Your task to perform on an android device: allow cookies in the chrome app Image 0: 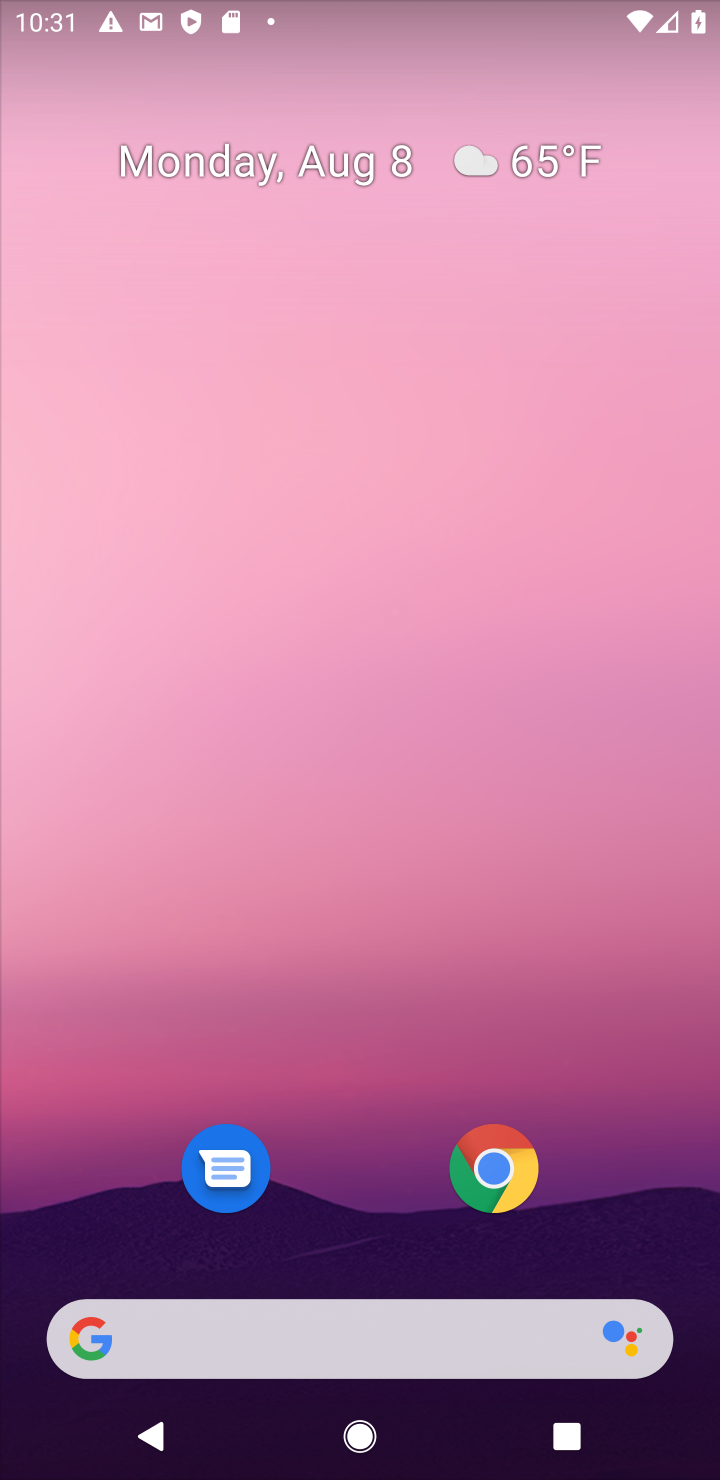
Step 0: click (506, 1191)
Your task to perform on an android device: allow cookies in the chrome app Image 1: 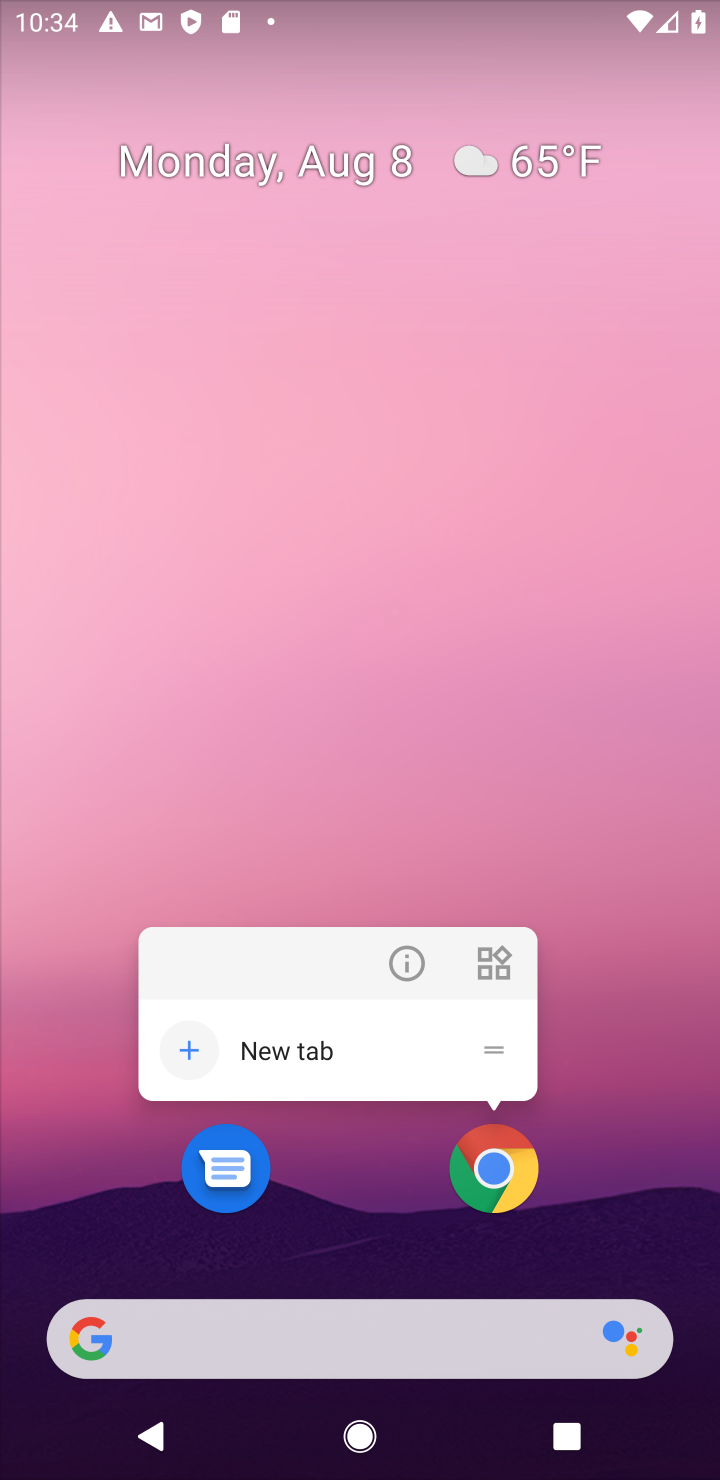
Step 1: click (437, 1180)
Your task to perform on an android device: allow cookies in the chrome app Image 2: 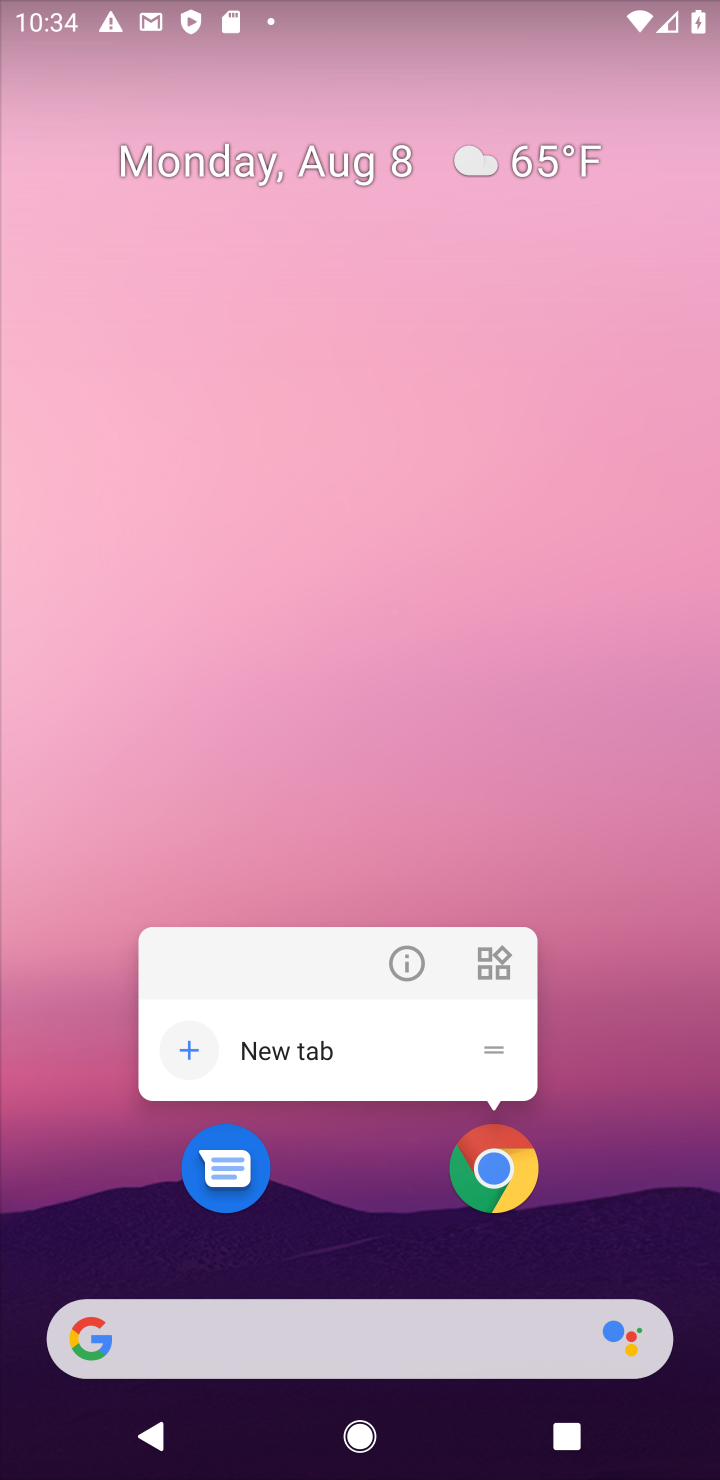
Step 2: click (527, 1184)
Your task to perform on an android device: allow cookies in the chrome app Image 3: 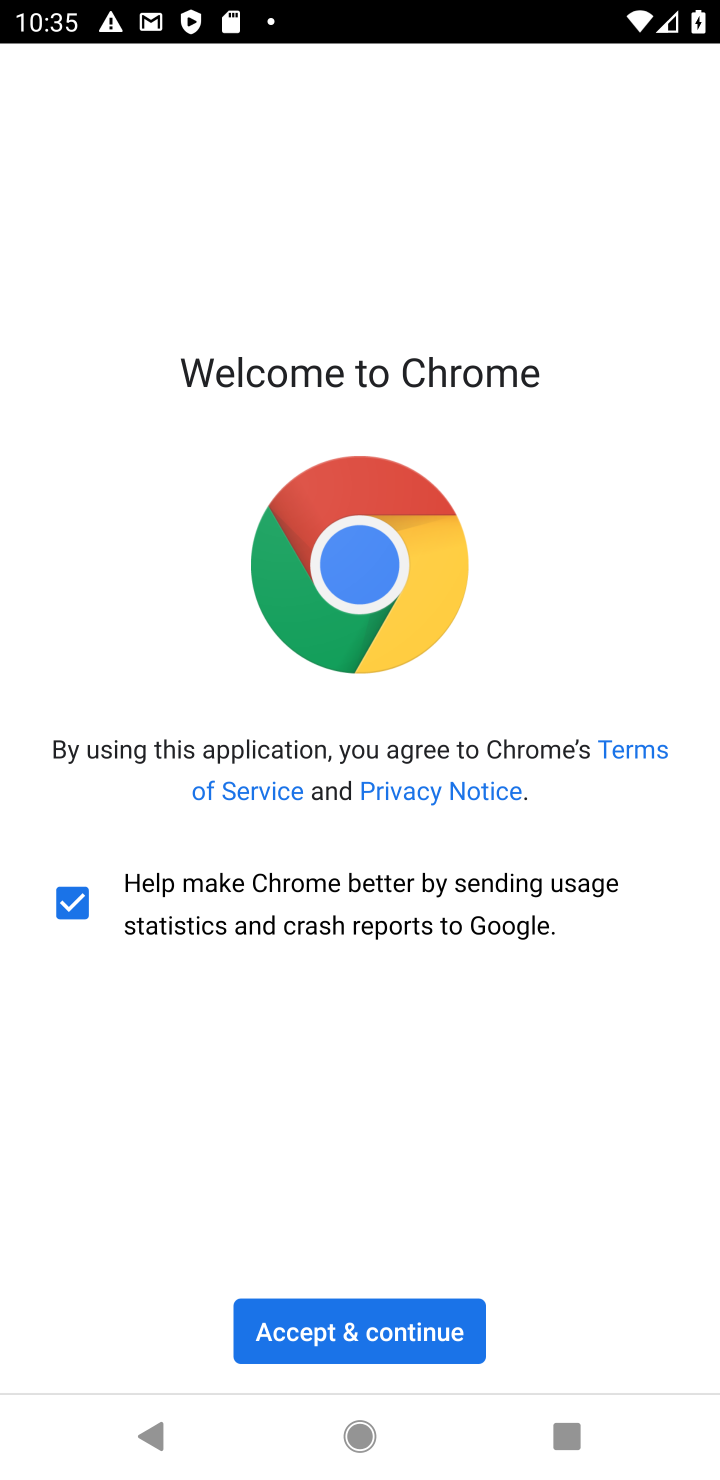
Step 3: click (377, 1329)
Your task to perform on an android device: allow cookies in the chrome app Image 4: 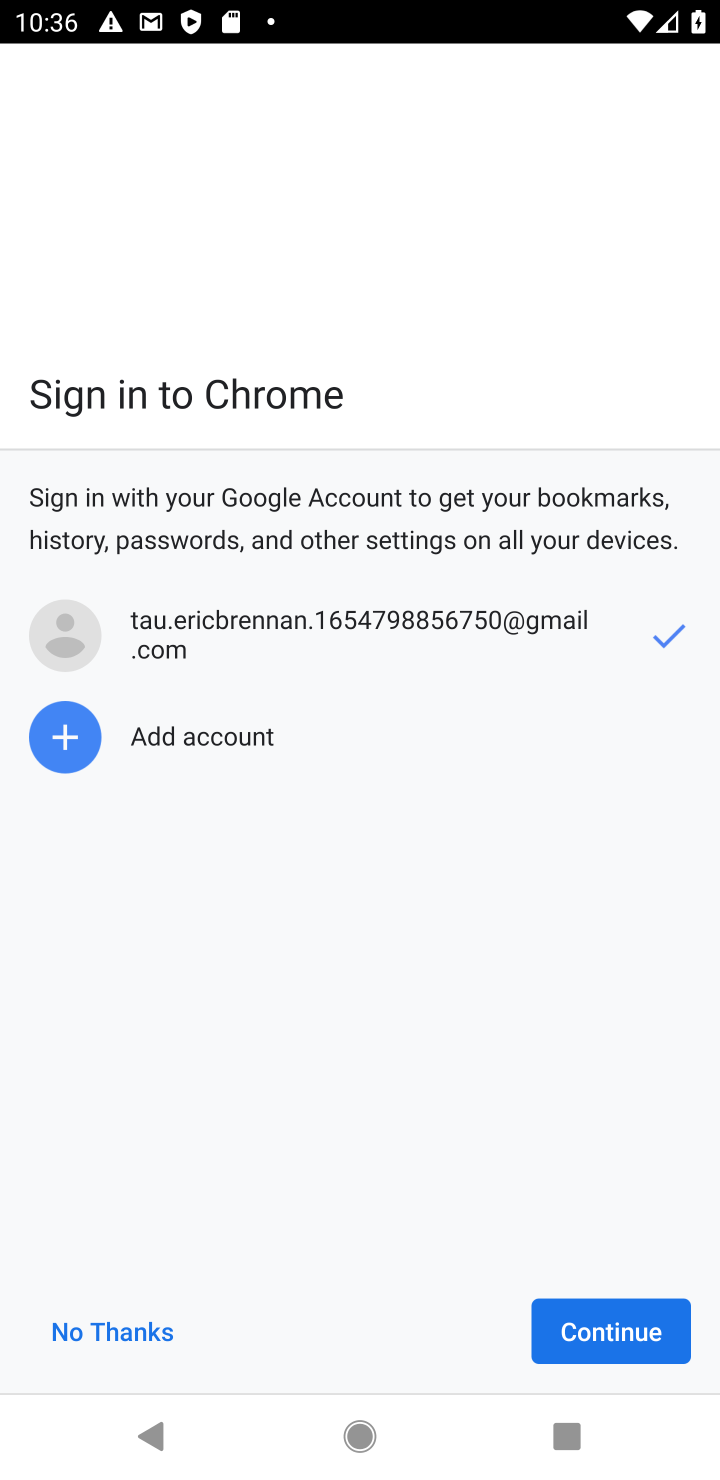
Step 4: click (377, 1329)
Your task to perform on an android device: allow cookies in the chrome app Image 5: 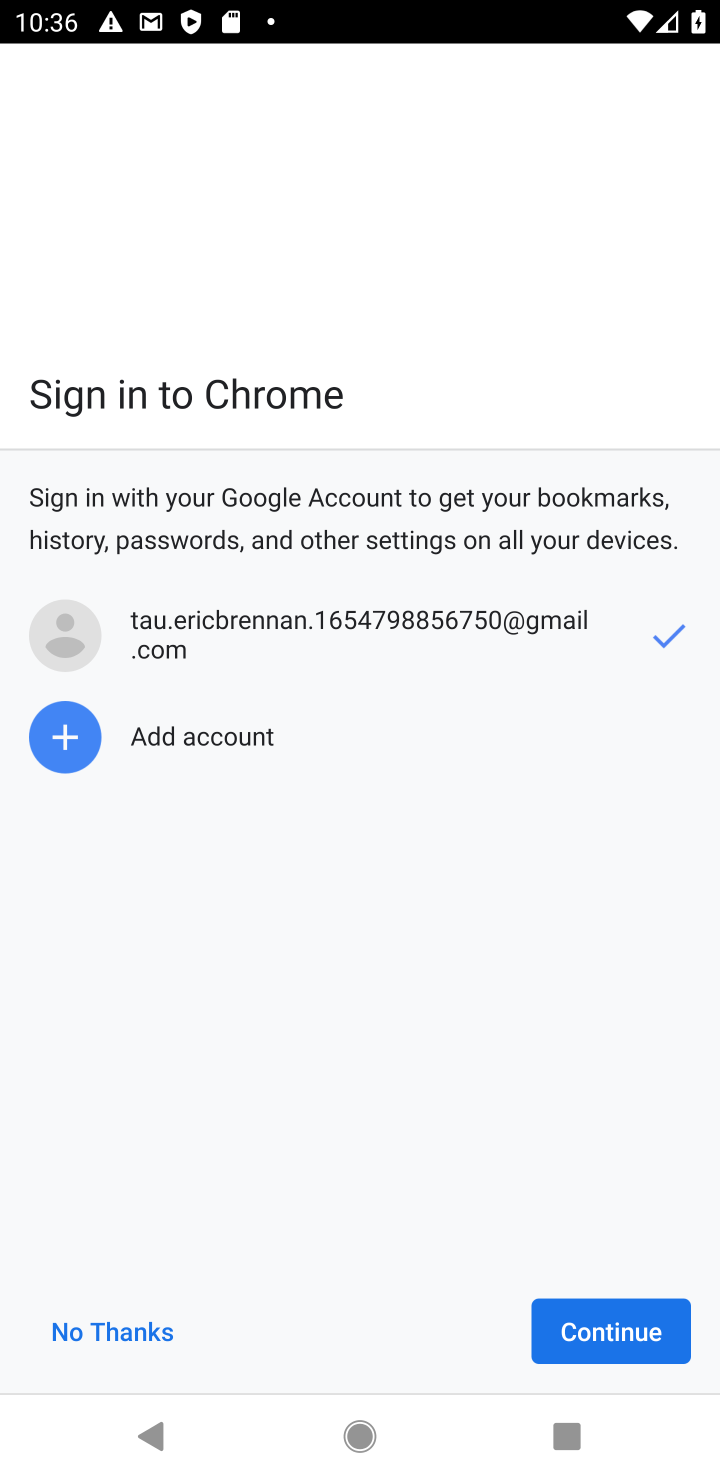
Step 5: click (672, 1342)
Your task to perform on an android device: allow cookies in the chrome app Image 6: 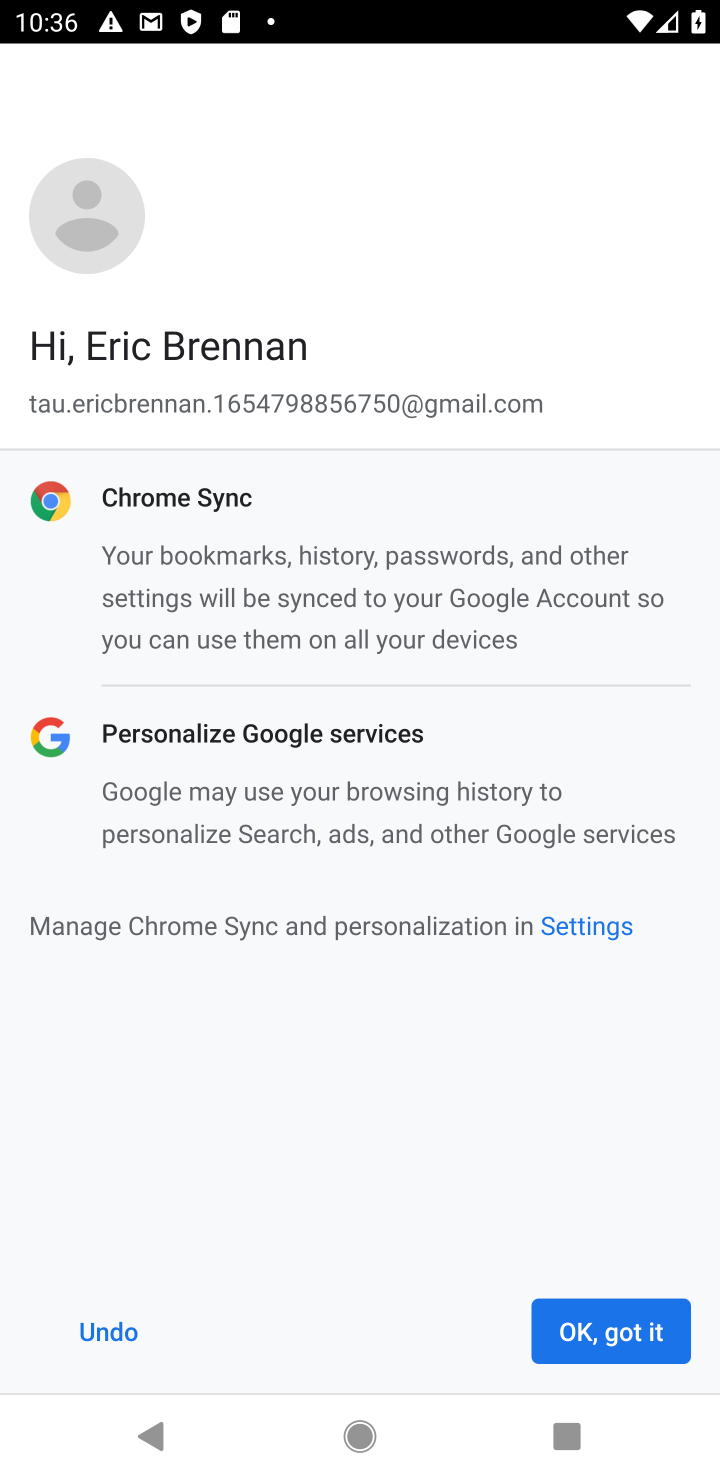
Step 6: click (672, 1342)
Your task to perform on an android device: allow cookies in the chrome app Image 7: 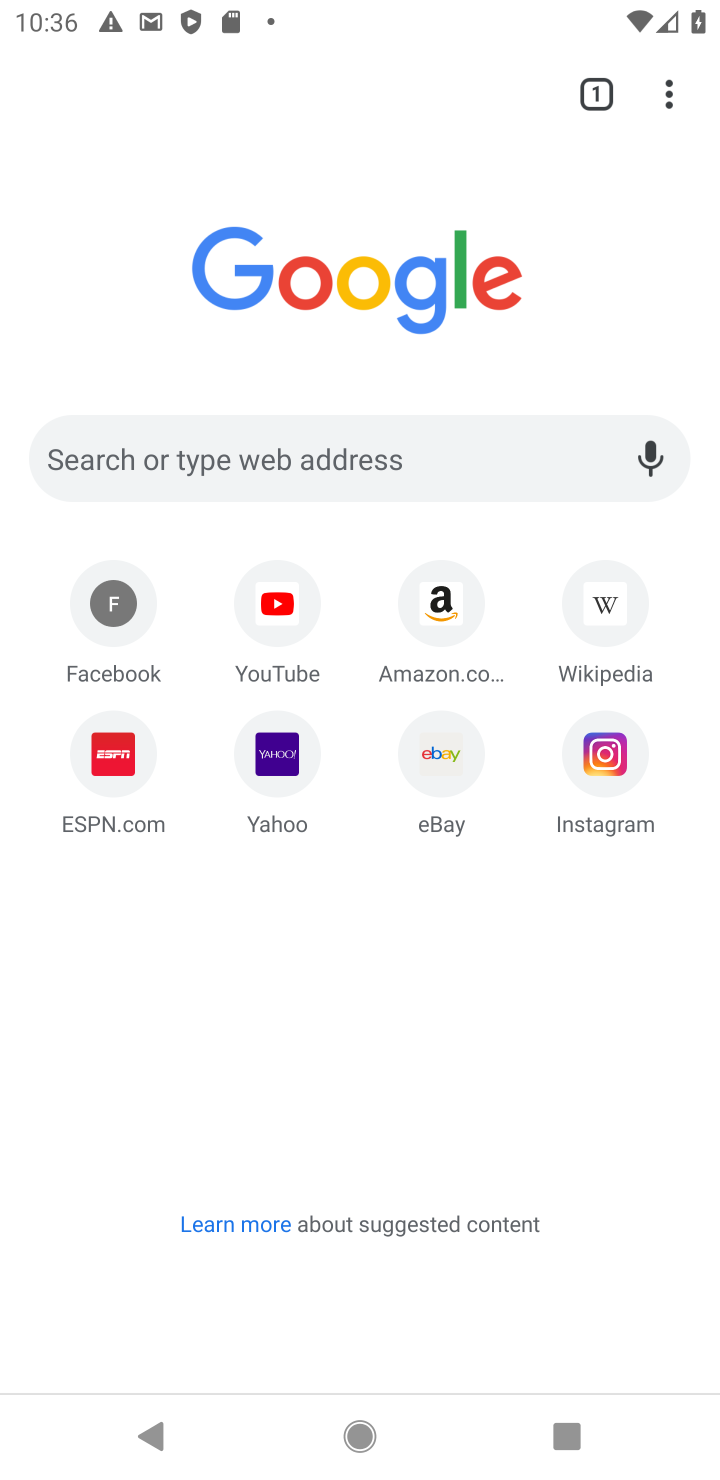
Step 7: click (673, 87)
Your task to perform on an android device: allow cookies in the chrome app Image 8: 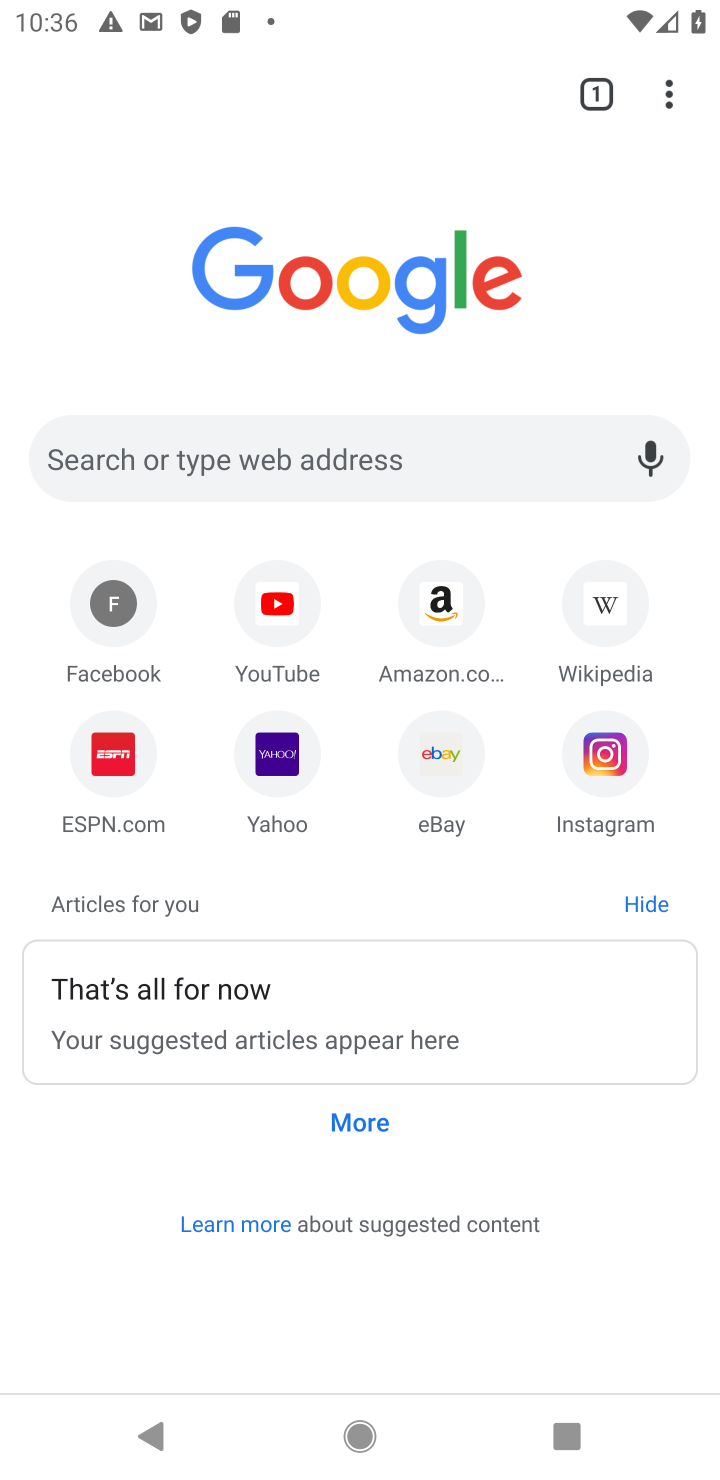
Step 8: click (673, 87)
Your task to perform on an android device: allow cookies in the chrome app Image 9: 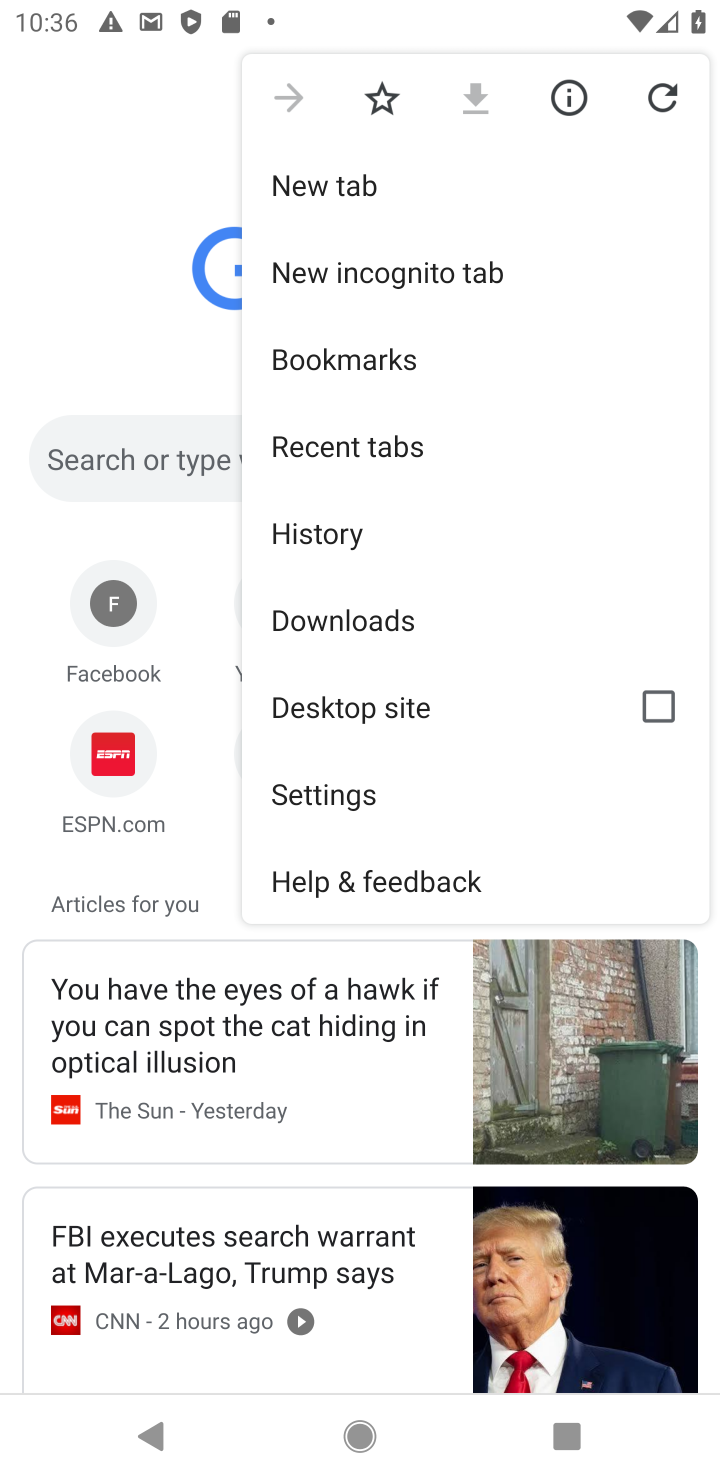
Step 9: click (388, 763)
Your task to perform on an android device: allow cookies in the chrome app Image 10: 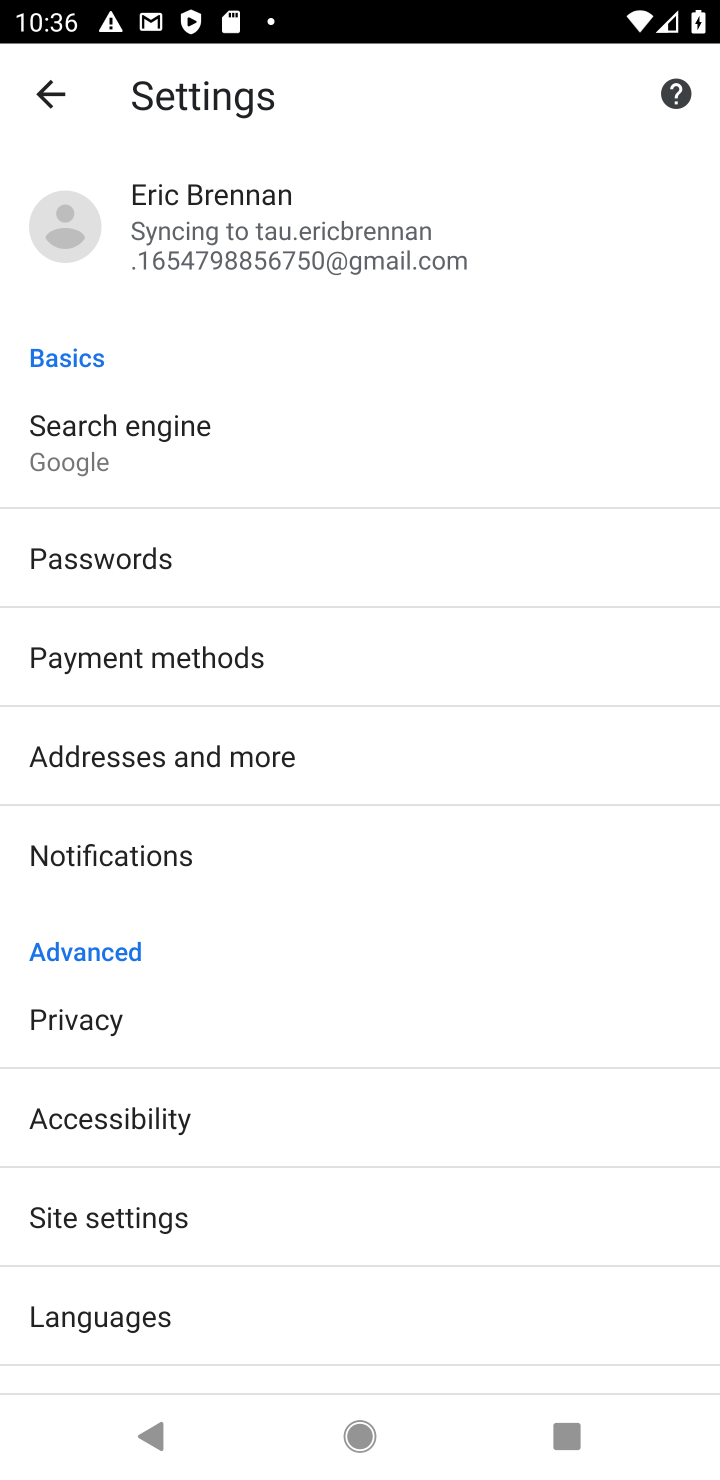
Step 10: click (158, 1205)
Your task to perform on an android device: allow cookies in the chrome app Image 11: 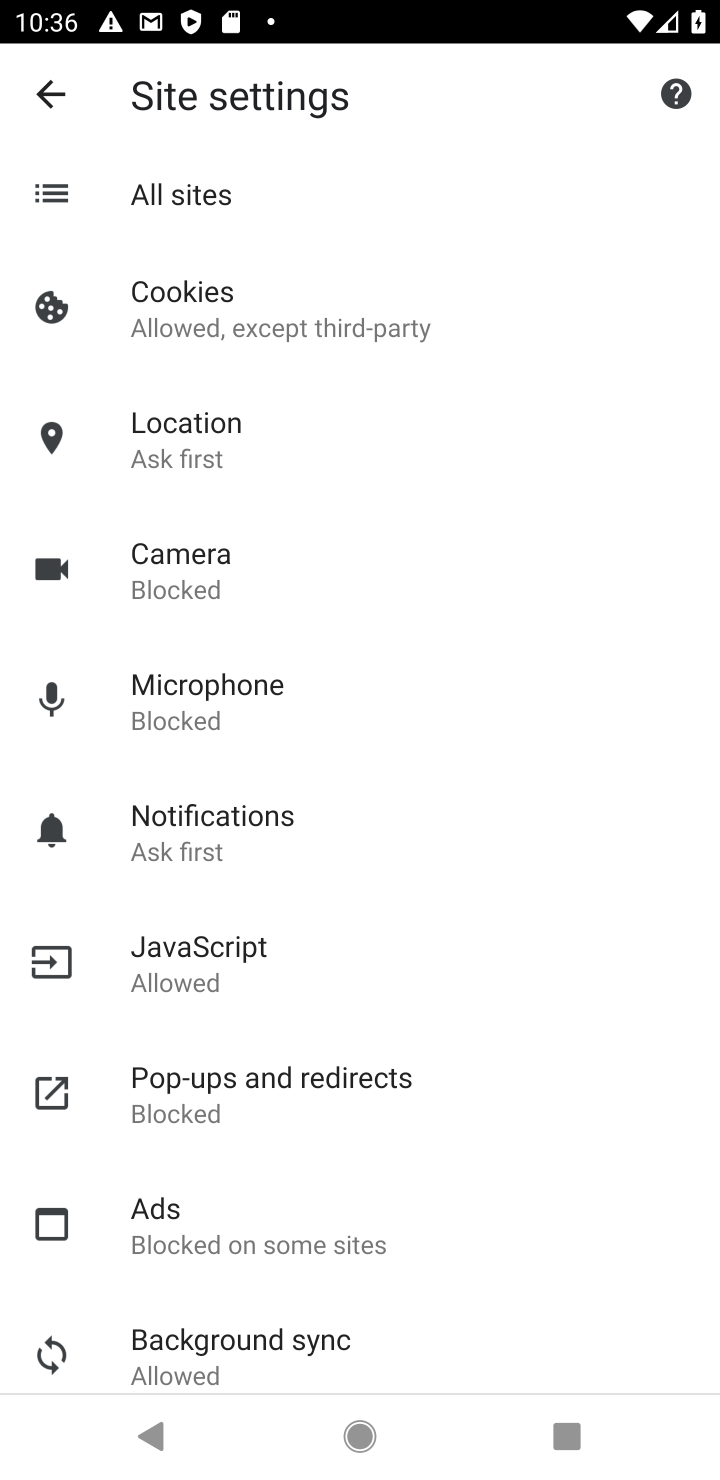
Step 11: click (364, 301)
Your task to perform on an android device: allow cookies in the chrome app Image 12: 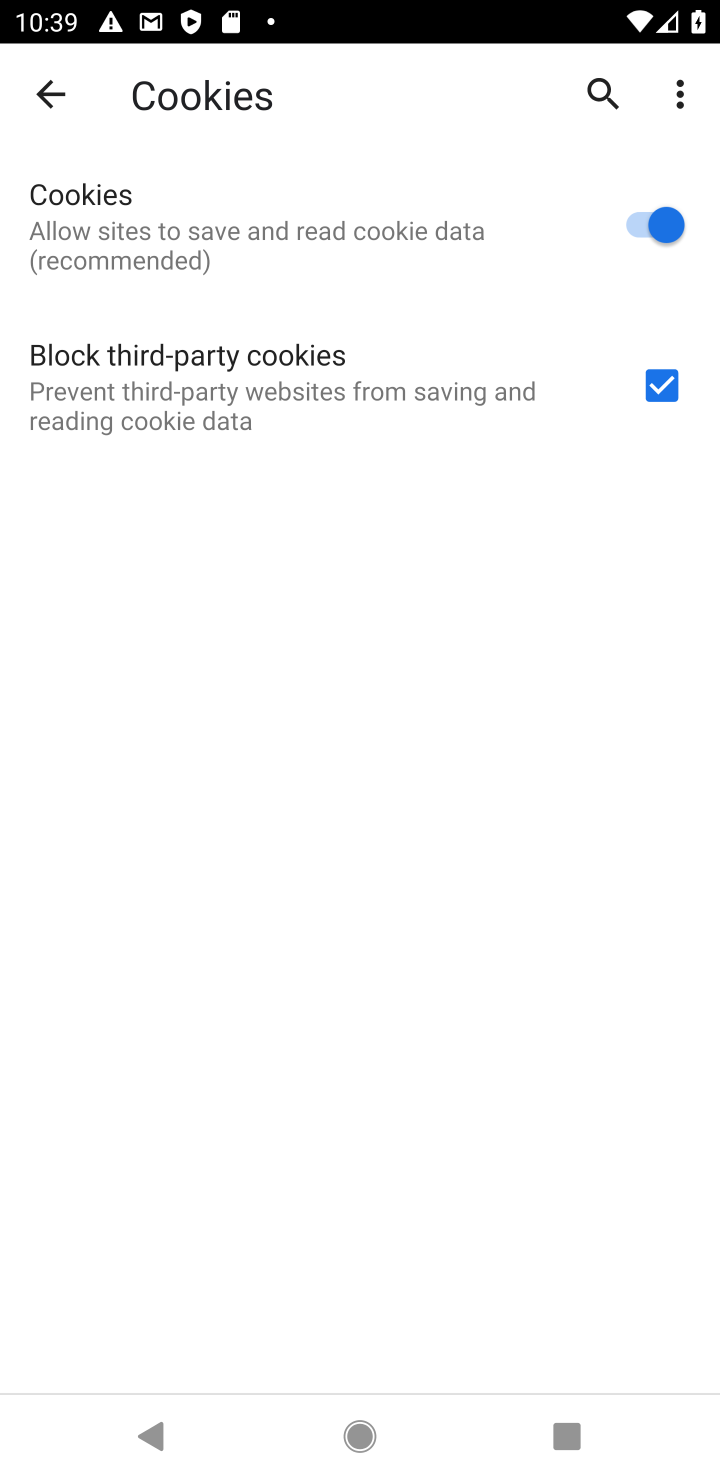
Step 12: task complete